Your task to perform on an android device: open a bookmark in the chrome app Image 0: 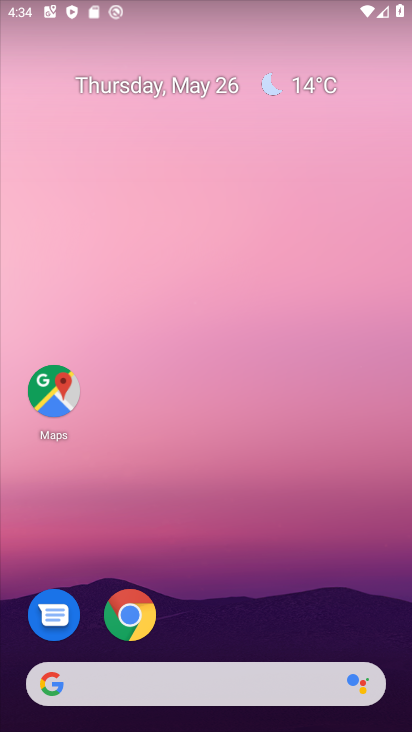
Step 0: click (131, 615)
Your task to perform on an android device: open a bookmark in the chrome app Image 1: 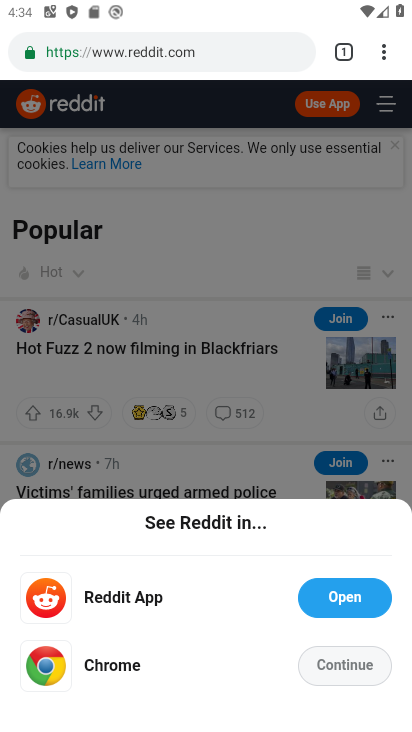
Step 1: drag from (380, 43) to (221, 198)
Your task to perform on an android device: open a bookmark in the chrome app Image 2: 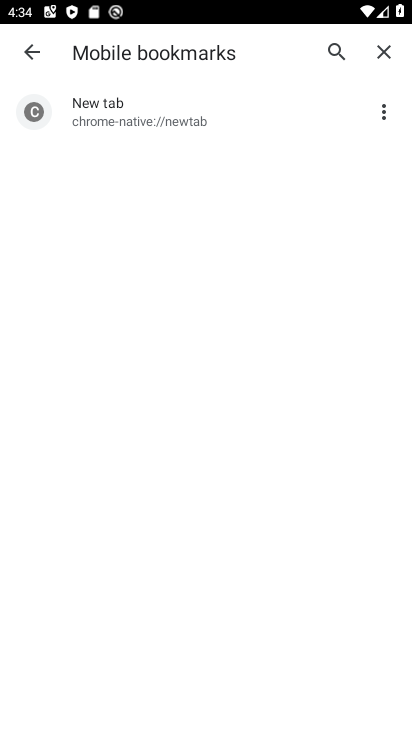
Step 2: click (158, 111)
Your task to perform on an android device: open a bookmark in the chrome app Image 3: 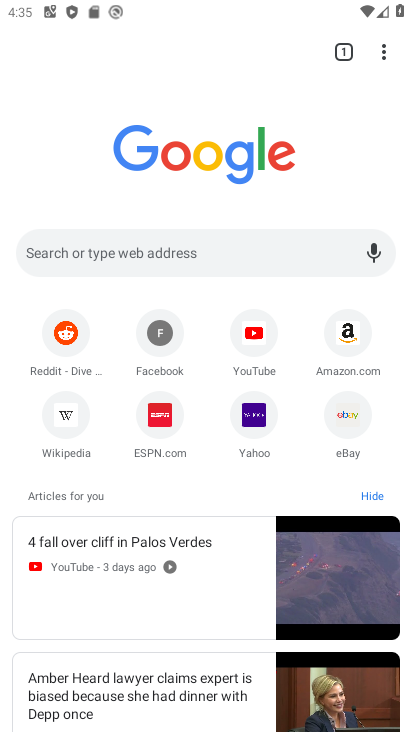
Step 3: task complete